Your task to perform on an android device: Show me popular videos on Youtube Image 0: 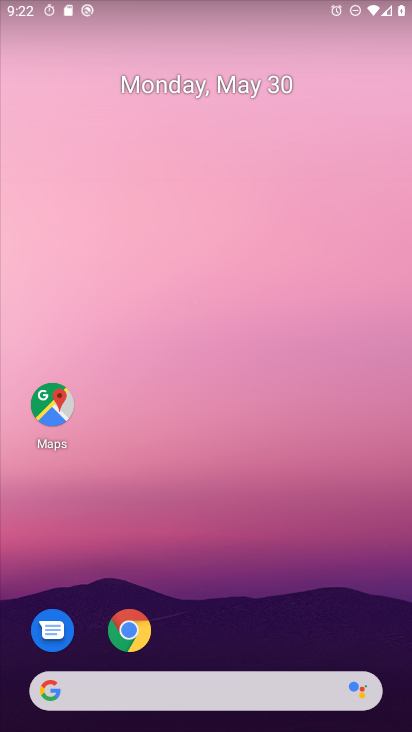
Step 0: drag from (378, 628) to (257, 86)
Your task to perform on an android device: Show me popular videos on Youtube Image 1: 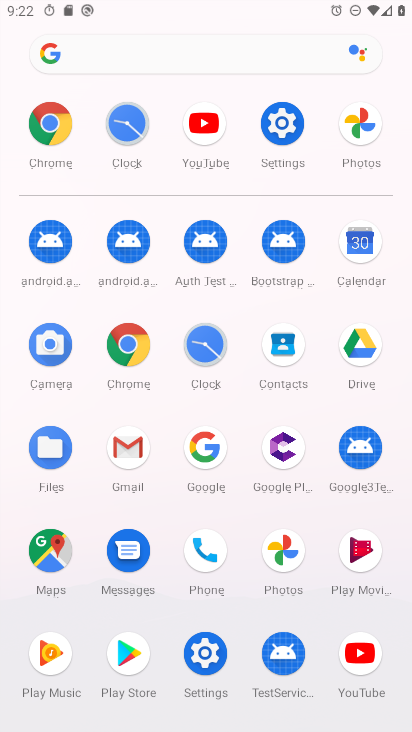
Step 1: click (365, 662)
Your task to perform on an android device: Show me popular videos on Youtube Image 2: 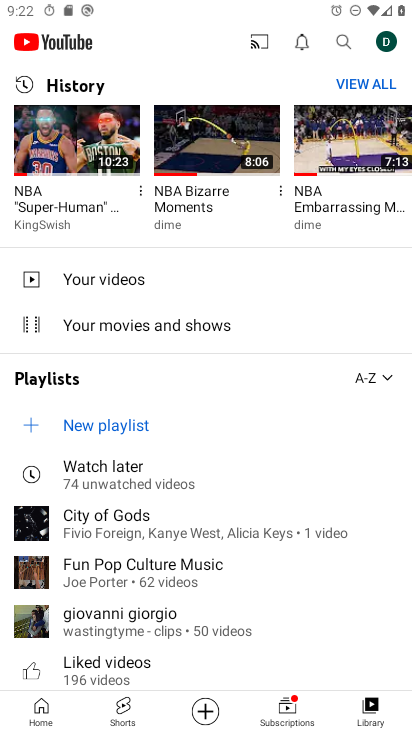
Step 2: task complete